Your task to perform on an android device: change text size in settings app Image 0: 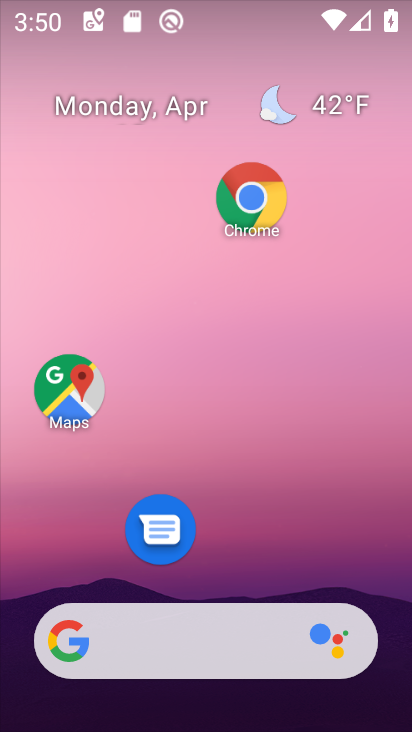
Step 0: drag from (218, 562) to (221, 138)
Your task to perform on an android device: change text size in settings app Image 1: 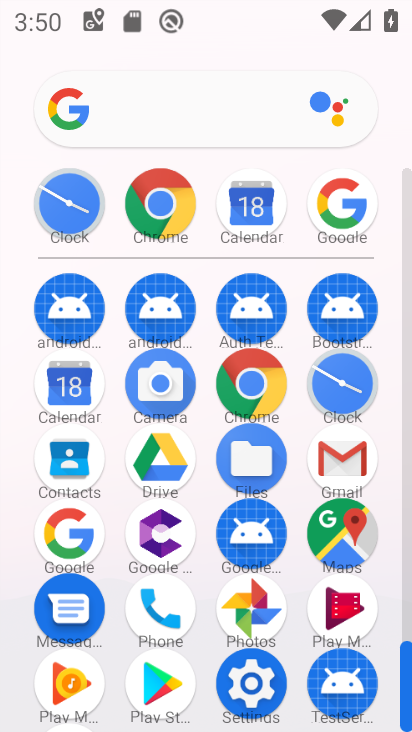
Step 1: click (250, 679)
Your task to perform on an android device: change text size in settings app Image 2: 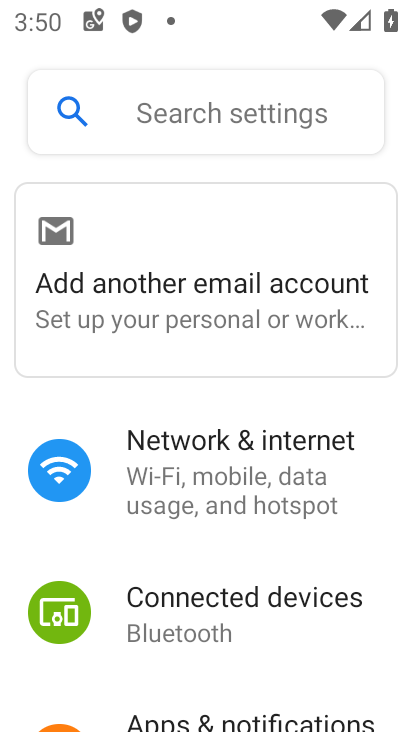
Step 2: drag from (243, 581) to (243, 207)
Your task to perform on an android device: change text size in settings app Image 3: 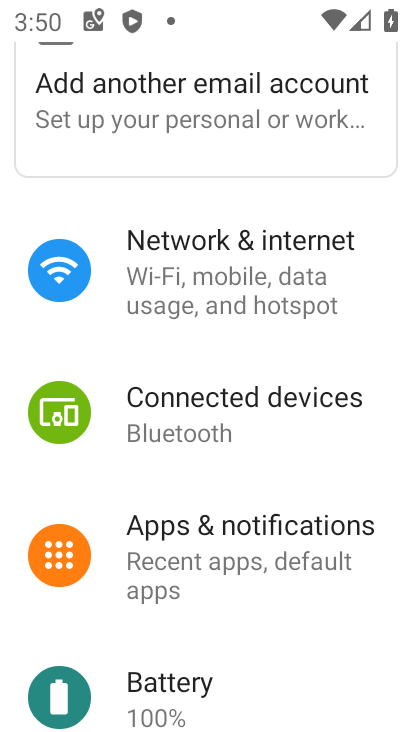
Step 3: drag from (257, 580) to (255, 309)
Your task to perform on an android device: change text size in settings app Image 4: 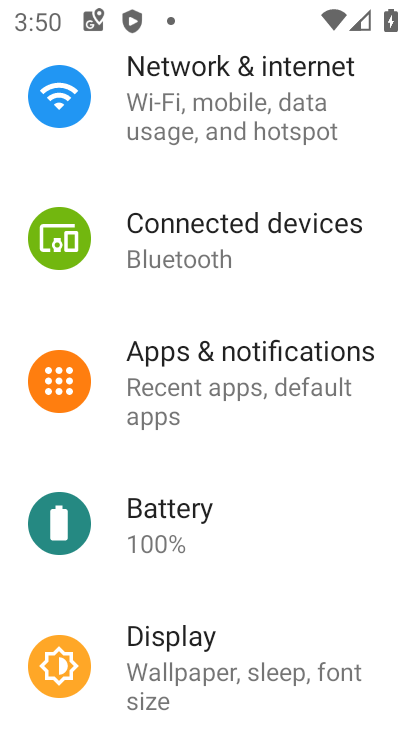
Step 4: click (239, 638)
Your task to perform on an android device: change text size in settings app Image 5: 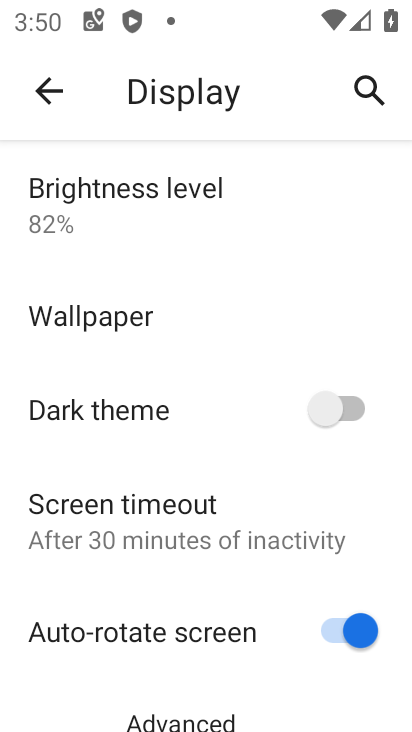
Step 5: drag from (207, 620) to (194, 342)
Your task to perform on an android device: change text size in settings app Image 6: 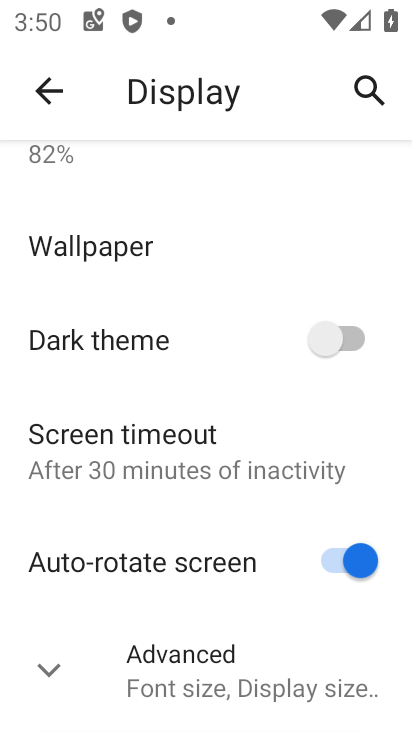
Step 6: click (191, 662)
Your task to perform on an android device: change text size in settings app Image 7: 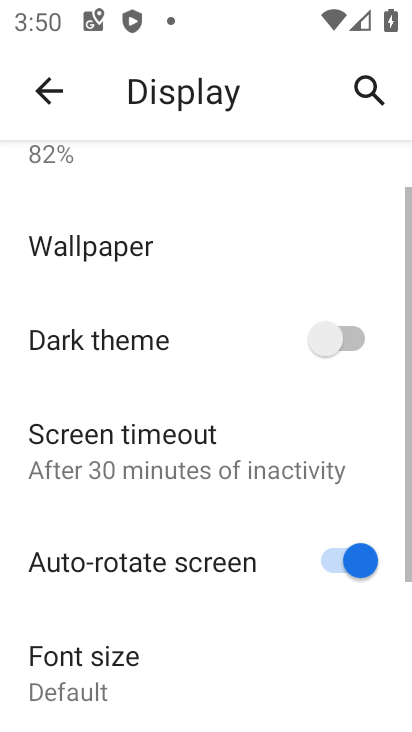
Step 7: drag from (178, 657) to (177, 335)
Your task to perform on an android device: change text size in settings app Image 8: 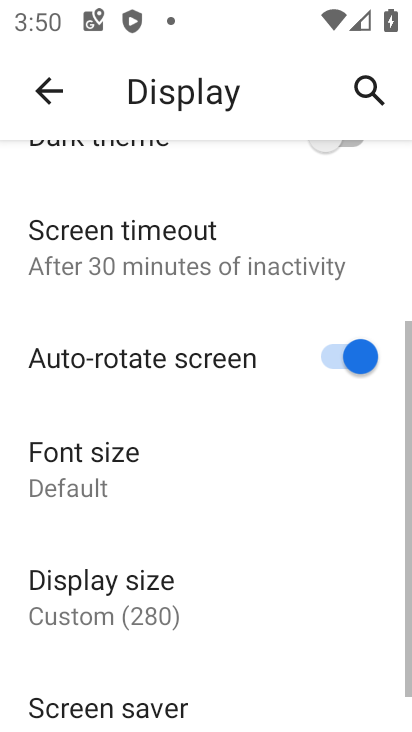
Step 8: click (119, 530)
Your task to perform on an android device: change text size in settings app Image 9: 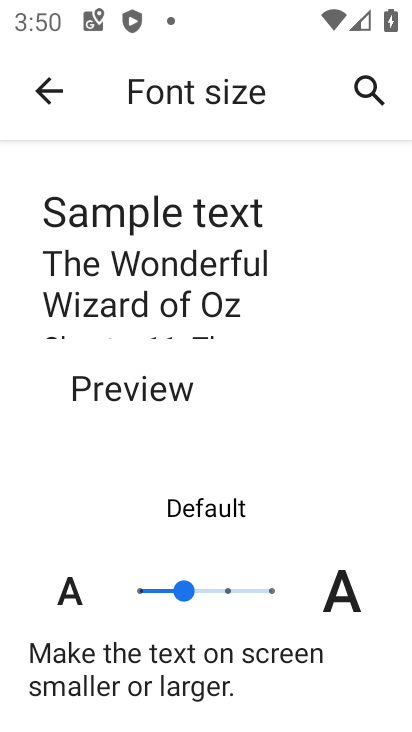
Step 9: click (138, 582)
Your task to perform on an android device: change text size in settings app Image 10: 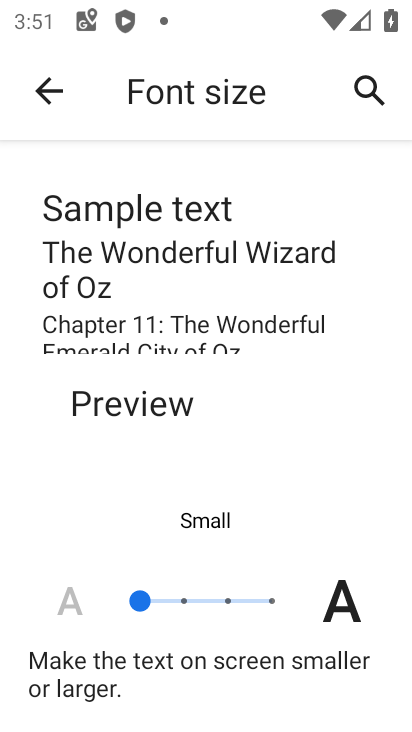
Step 10: task complete